Your task to perform on an android device: change notification settings in the gmail app Image 0: 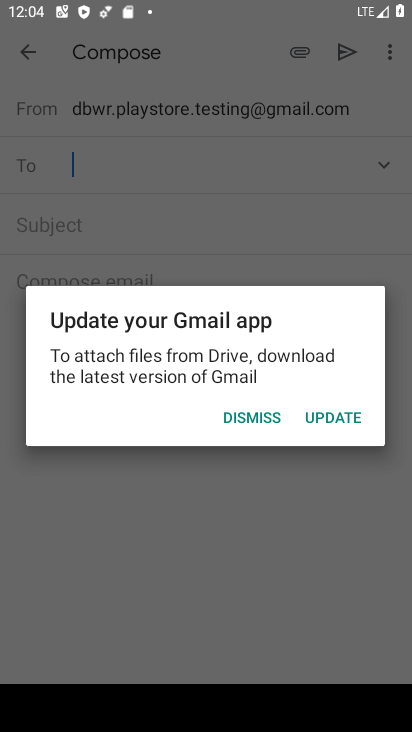
Step 0: press home button
Your task to perform on an android device: change notification settings in the gmail app Image 1: 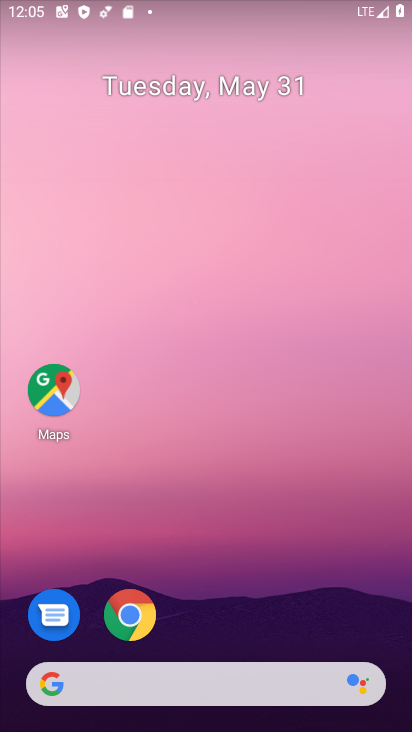
Step 1: drag from (247, 604) to (302, 0)
Your task to perform on an android device: change notification settings in the gmail app Image 2: 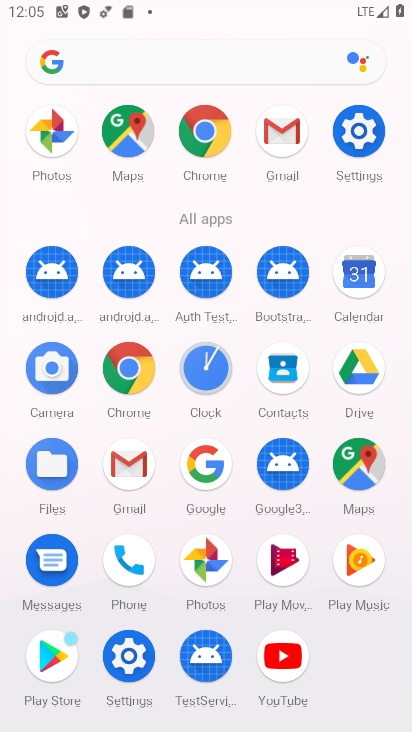
Step 2: click (130, 471)
Your task to perform on an android device: change notification settings in the gmail app Image 3: 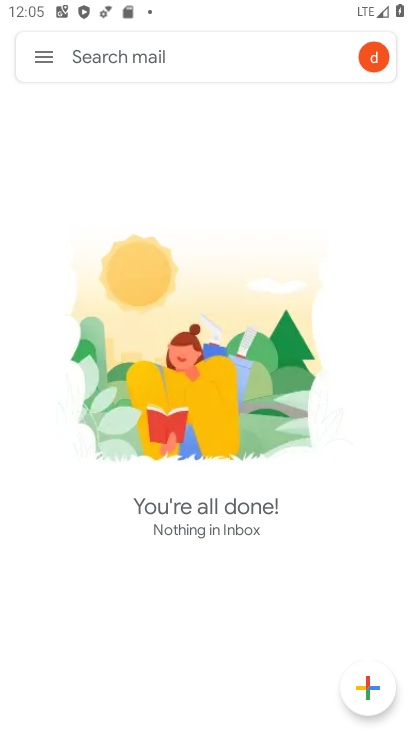
Step 3: click (29, 53)
Your task to perform on an android device: change notification settings in the gmail app Image 4: 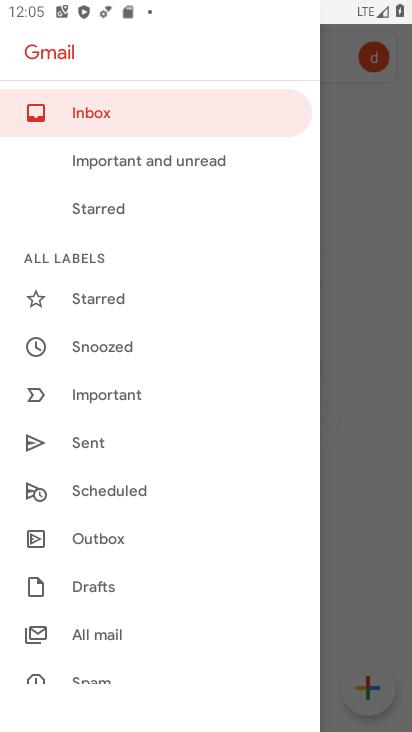
Step 4: drag from (127, 563) to (262, 15)
Your task to perform on an android device: change notification settings in the gmail app Image 5: 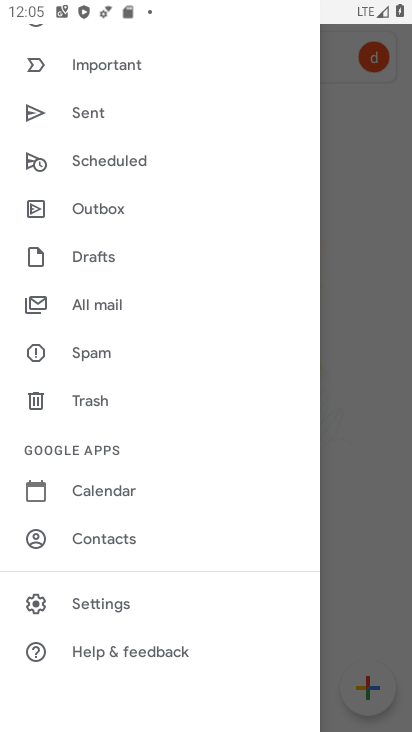
Step 5: click (129, 613)
Your task to perform on an android device: change notification settings in the gmail app Image 6: 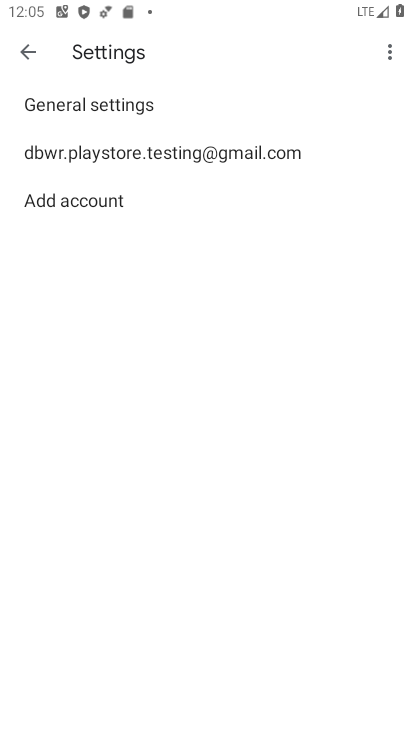
Step 6: click (99, 108)
Your task to perform on an android device: change notification settings in the gmail app Image 7: 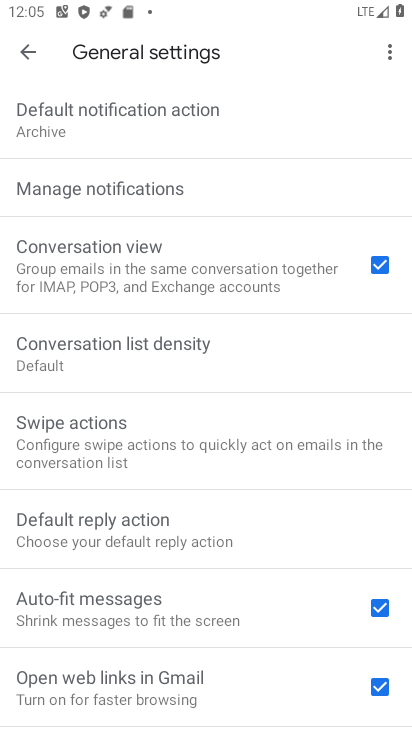
Step 7: click (160, 193)
Your task to perform on an android device: change notification settings in the gmail app Image 8: 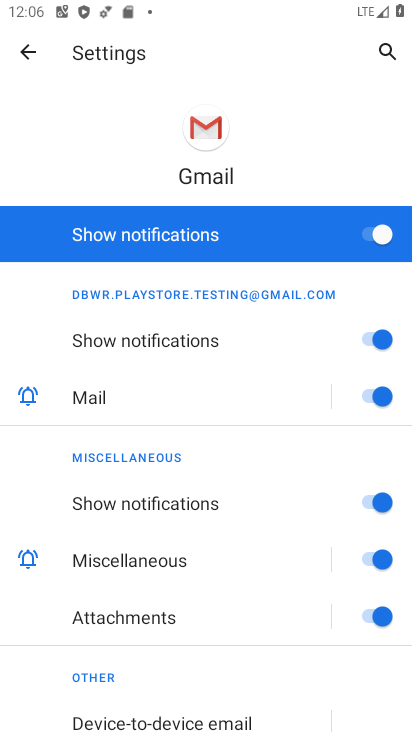
Step 8: click (338, 226)
Your task to perform on an android device: change notification settings in the gmail app Image 9: 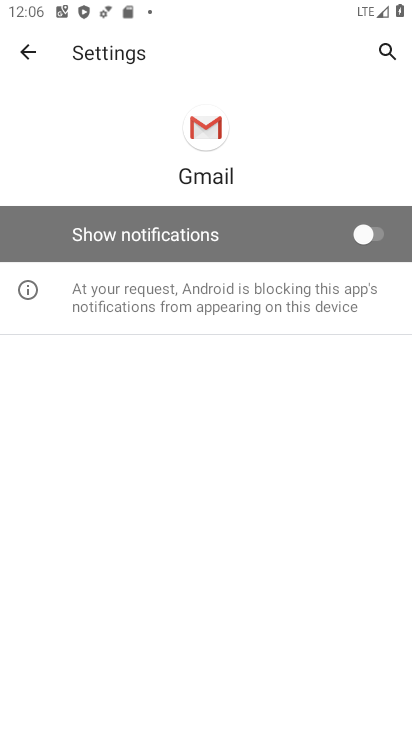
Step 9: task complete